Your task to perform on an android device: turn off javascript in the chrome app Image 0: 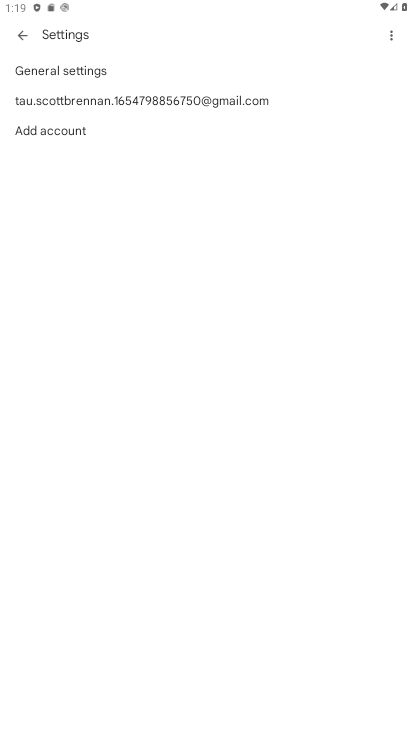
Step 0: click (145, 72)
Your task to perform on an android device: turn off javascript in the chrome app Image 1: 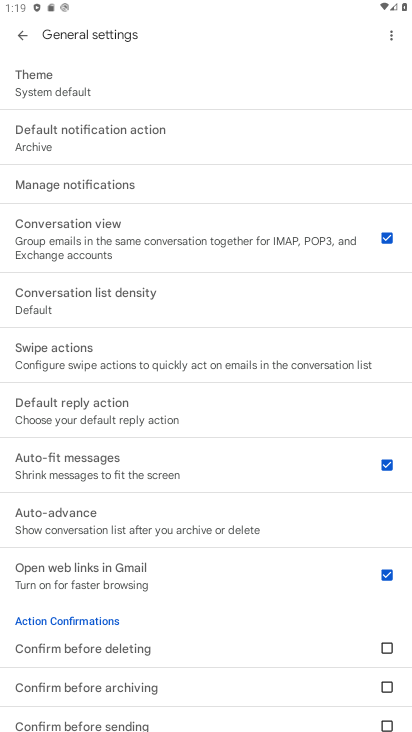
Step 1: task complete